Your task to perform on an android device: Check the weather Image 0: 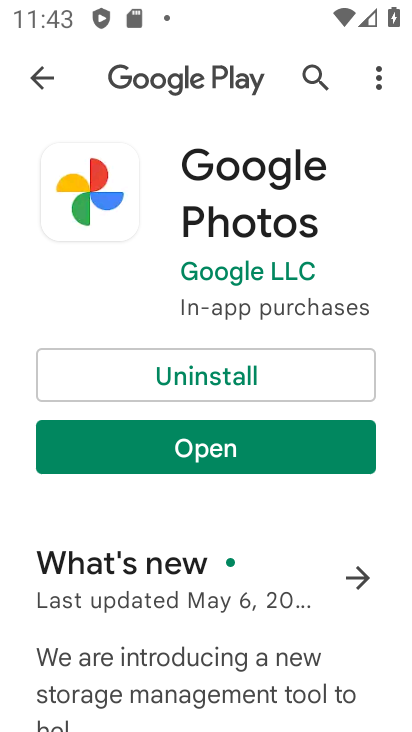
Step 0: press back button
Your task to perform on an android device: Check the weather Image 1: 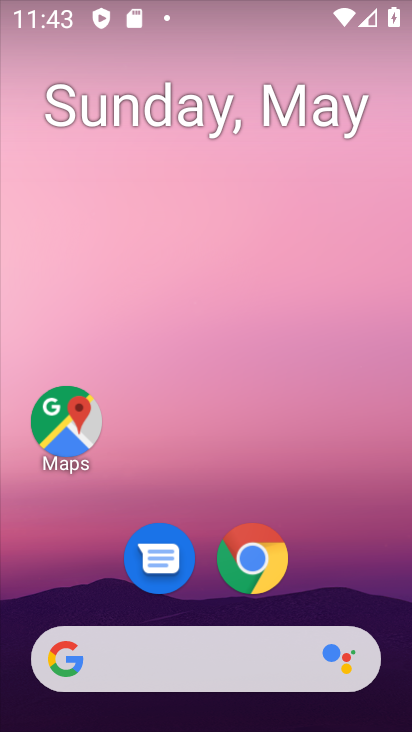
Step 1: click (229, 650)
Your task to perform on an android device: Check the weather Image 2: 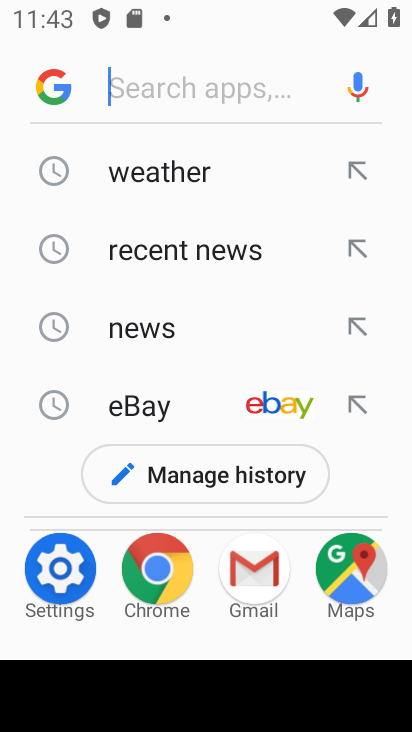
Step 2: click (174, 167)
Your task to perform on an android device: Check the weather Image 3: 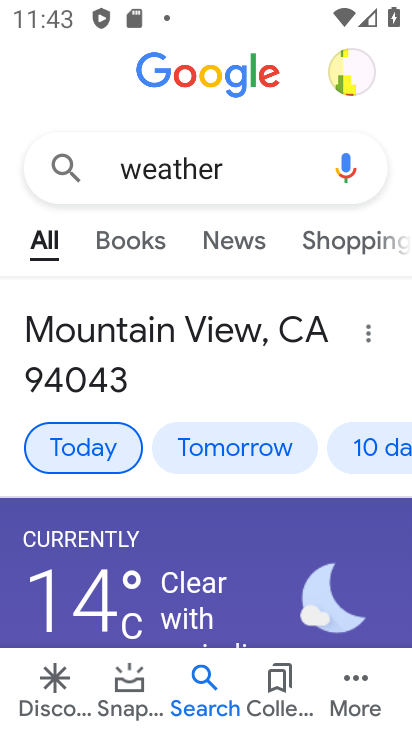
Step 3: task complete